Your task to perform on an android device: check android version Image 0: 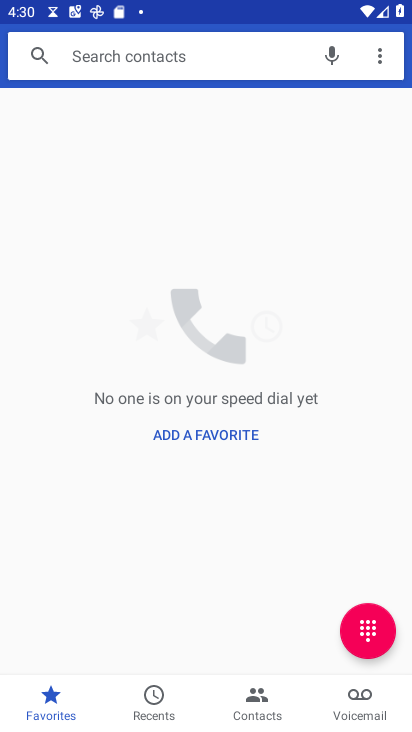
Step 0: press home button
Your task to perform on an android device: check android version Image 1: 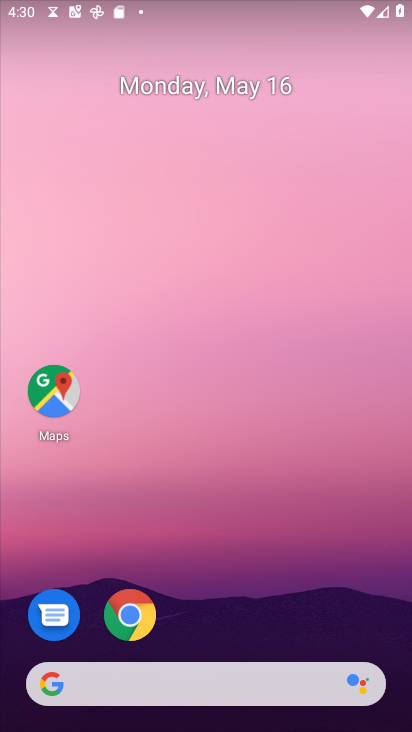
Step 1: drag from (225, 614) to (314, 111)
Your task to perform on an android device: check android version Image 2: 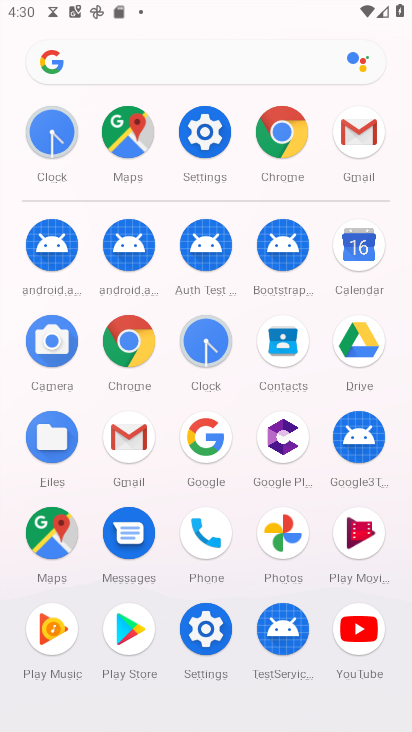
Step 2: click (209, 625)
Your task to perform on an android device: check android version Image 3: 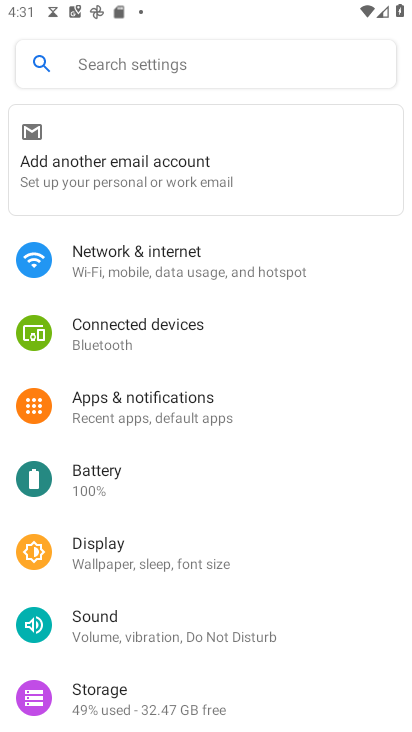
Step 3: click (234, 265)
Your task to perform on an android device: check android version Image 4: 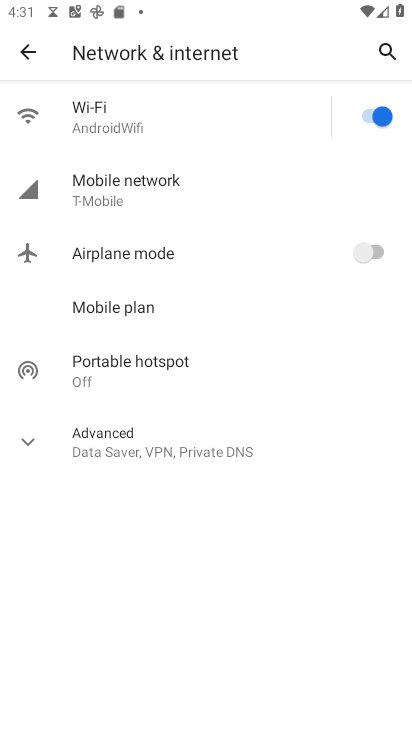
Step 4: click (23, 40)
Your task to perform on an android device: check android version Image 5: 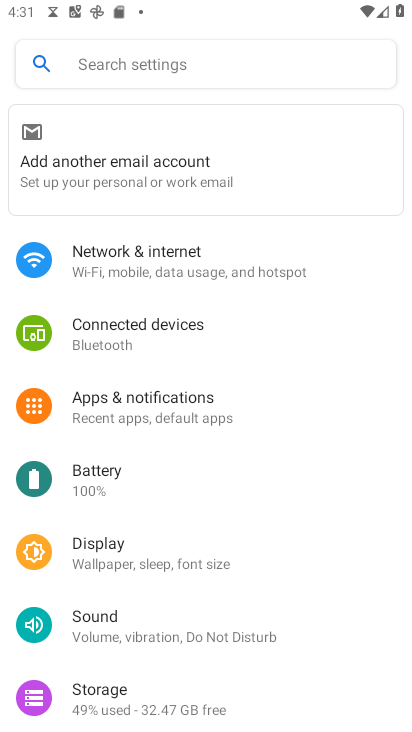
Step 5: drag from (143, 684) to (210, 396)
Your task to perform on an android device: check android version Image 6: 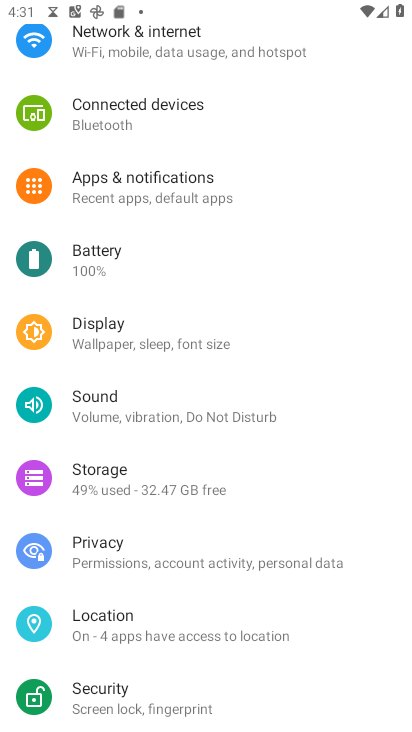
Step 6: drag from (125, 647) to (320, 134)
Your task to perform on an android device: check android version Image 7: 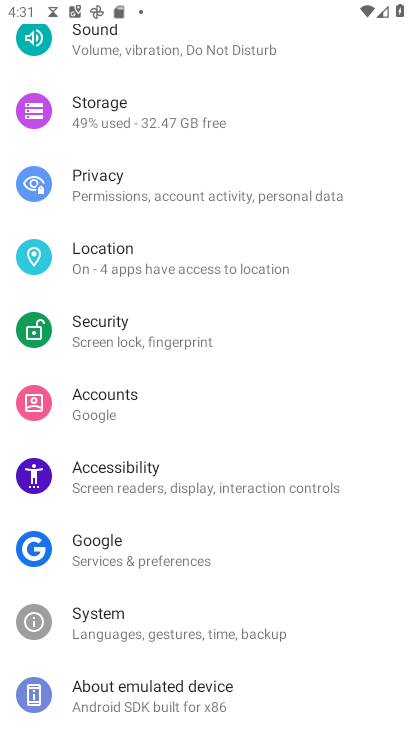
Step 7: drag from (194, 542) to (257, 219)
Your task to perform on an android device: check android version Image 8: 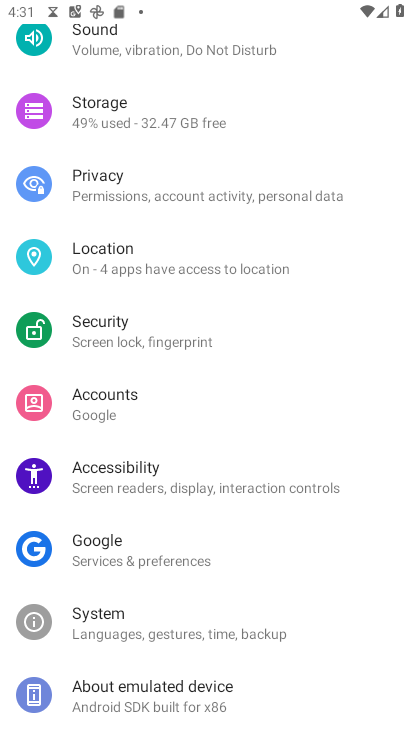
Step 8: click (134, 699)
Your task to perform on an android device: check android version Image 9: 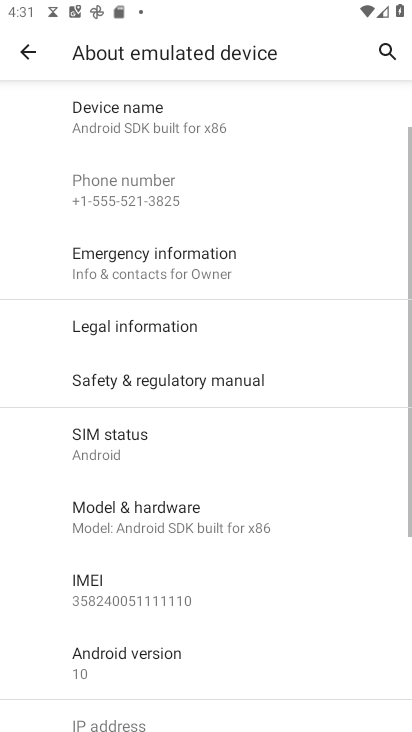
Step 9: task complete